Your task to perform on an android device: choose inbox layout in the gmail app Image 0: 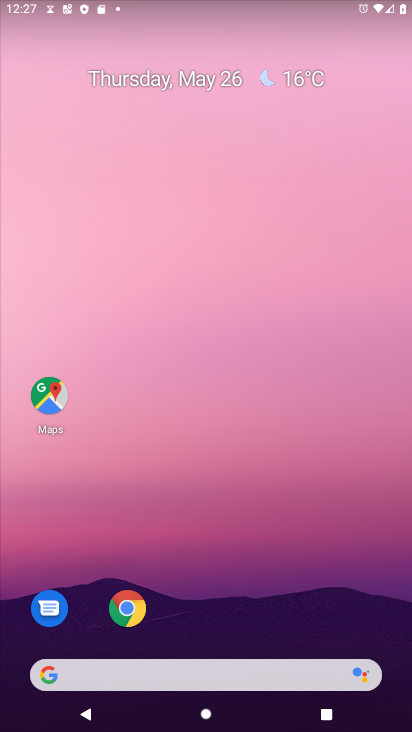
Step 0: drag from (236, 722) to (236, 50)
Your task to perform on an android device: choose inbox layout in the gmail app Image 1: 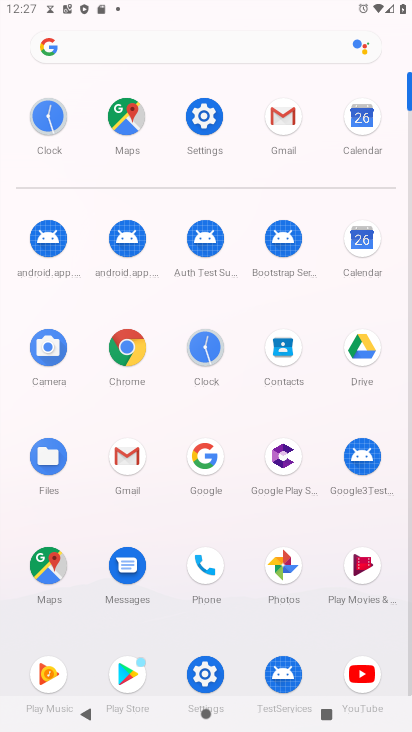
Step 1: click (285, 114)
Your task to perform on an android device: choose inbox layout in the gmail app Image 2: 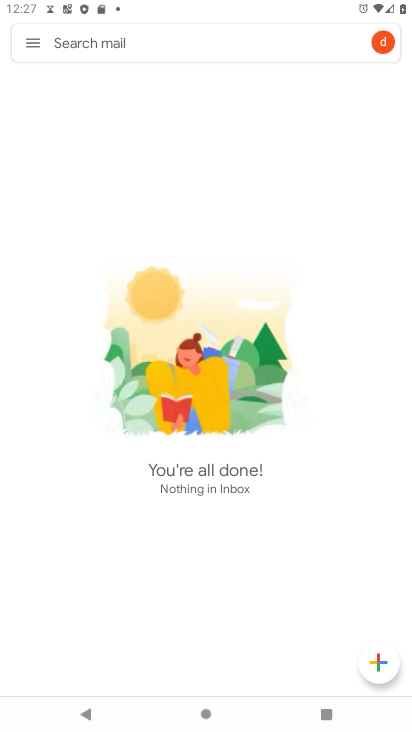
Step 2: click (34, 42)
Your task to perform on an android device: choose inbox layout in the gmail app Image 3: 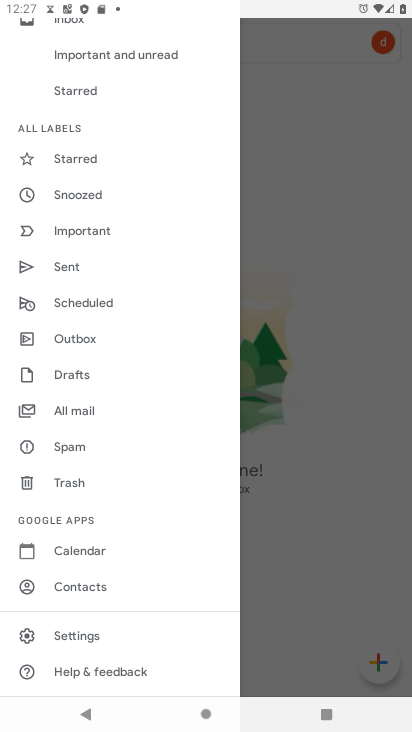
Step 3: click (72, 631)
Your task to perform on an android device: choose inbox layout in the gmail app Image 4: 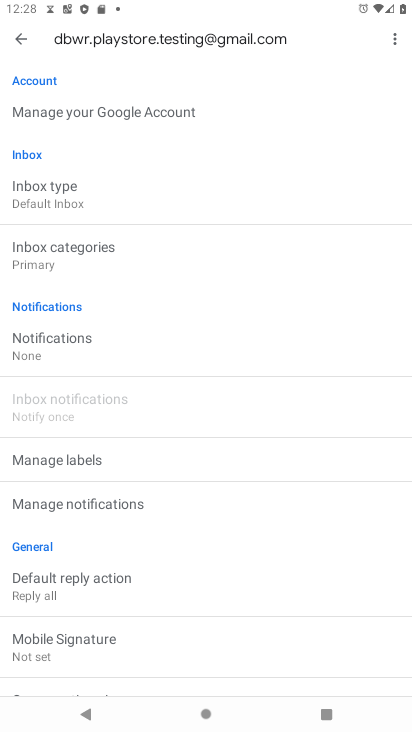
Step 4: click (34, 191)
Your task to perform on an android device: choose inbox layout in the gmail app Image 5: 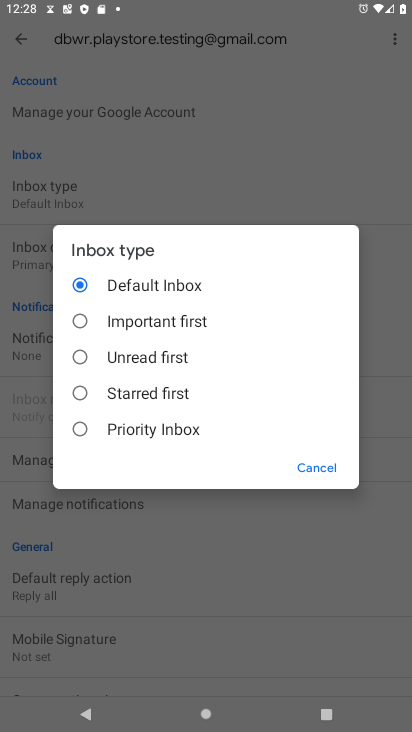
Step 5: click (77, 427)
Your task to perform on an android device: choose inbox layout in the gmail app Image 6: 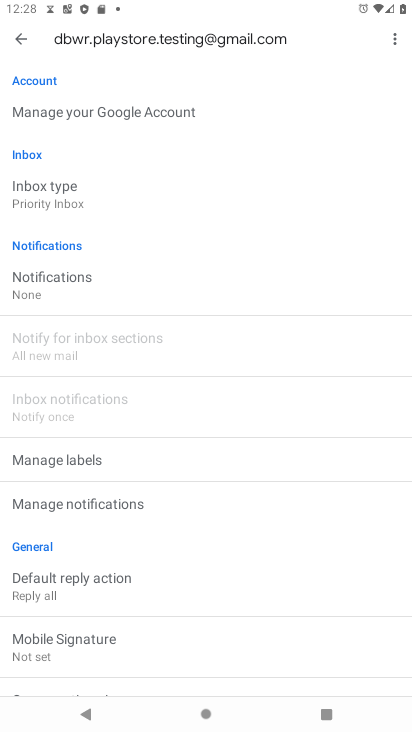
Step 6: task complete